Your task to perform on an android device: Open internet settings Image 0: 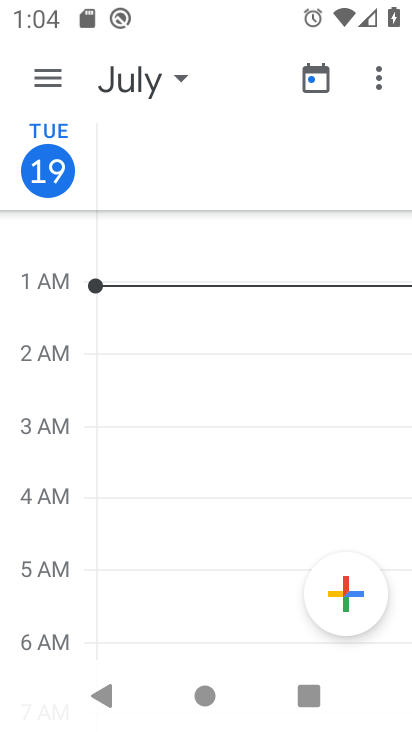
Step 0: press home button
Your task to perform on an android device: Open internet settings Image 1: 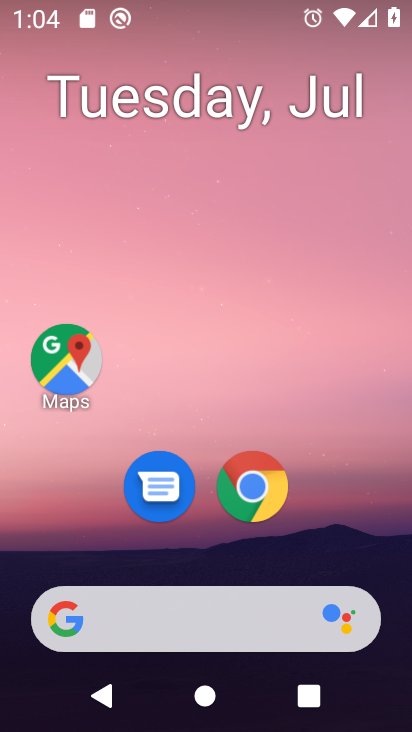
Step 1: drag from (334, 556) to (380, 51)
Your task to perform on an android device: Open internet settings Image 2: 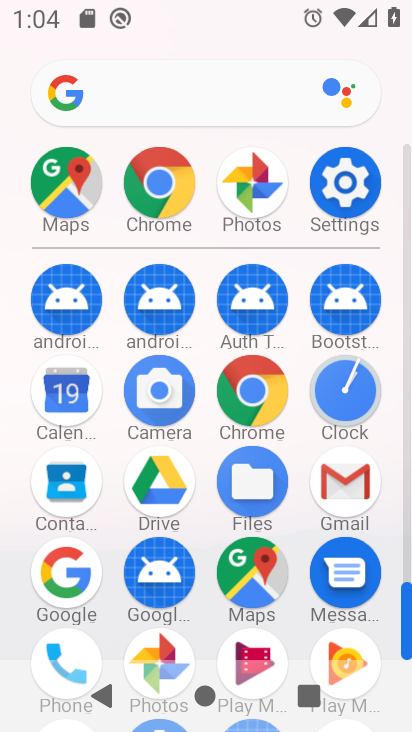
Step 2: click (357, 196)
Your task to perform on an android device: Open internet settings Image 3: 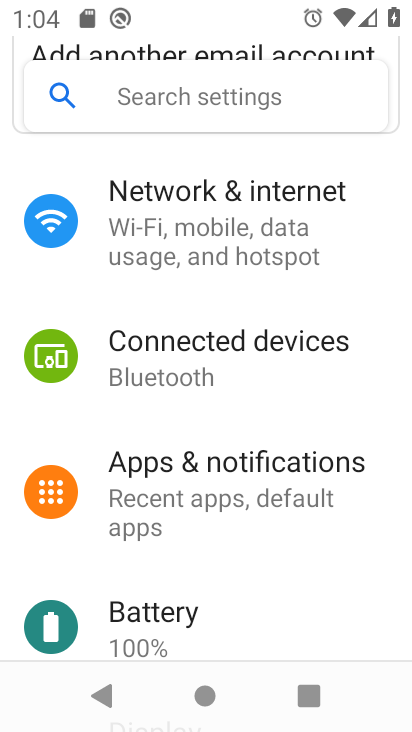
Step 3: drag from (367, 482) to (394, 297)
Your task to perform on an android device: Open internet settings Image 4: 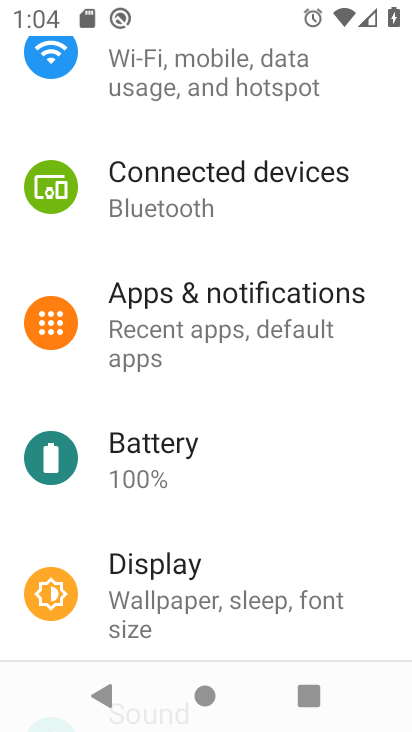
Step 4: drag from (344, 187) to (340, 318)
Your task to perform on an android device: Open internet settings Image 5: 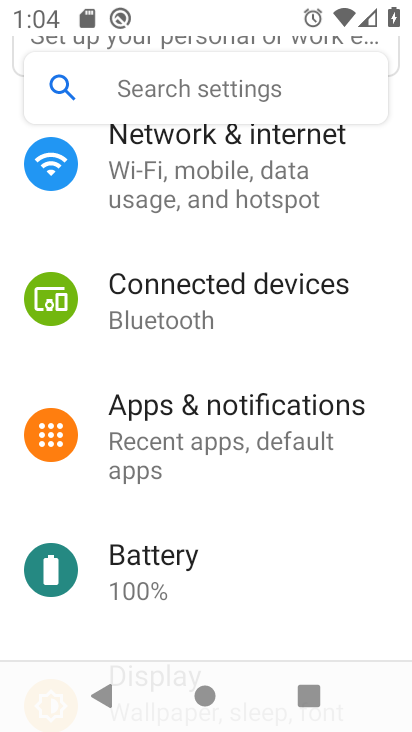
Step 5: drag from (298, 519) to (348, 289)
Your task to perform on an android device: Open internet settings Image 6: 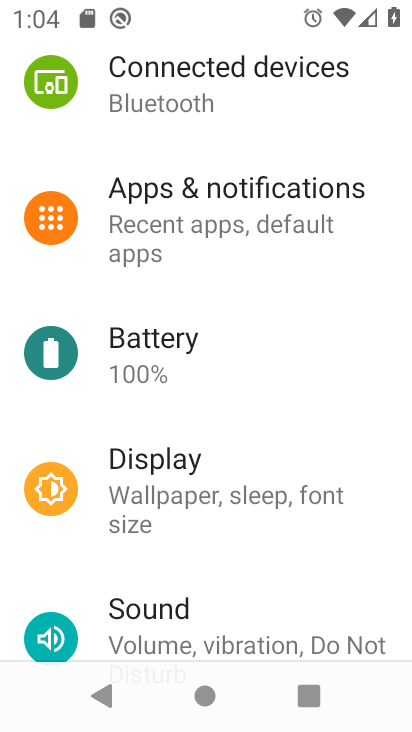
Step 6: drag from (307, 420) to (310, 246)
Your task to perform on an android device: Open internet settings Image 7: 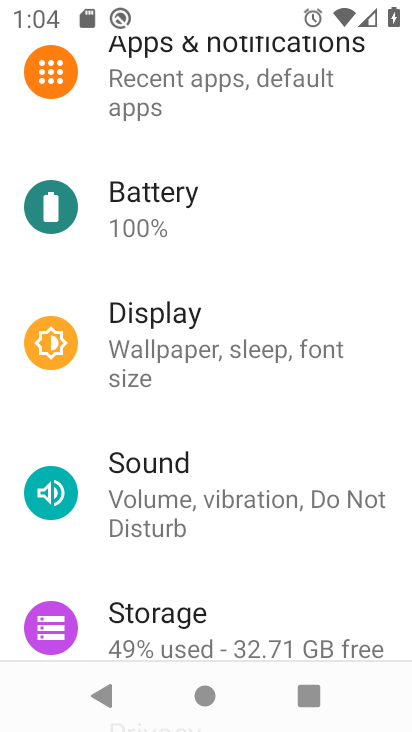
Step 7: drag from (285, 246) to (304, 407)
Your task to perform on an android device: Open internet settings Image 8: 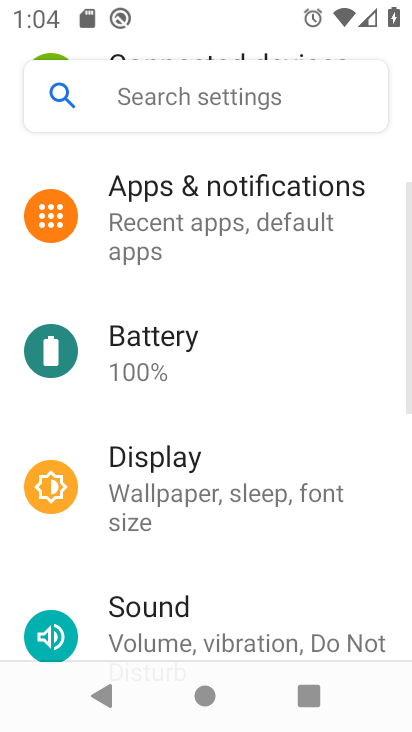
Step 8: drag from (312, 273) to (314, 432)
Your task to perform on an android device: Open internet settings Image 9: 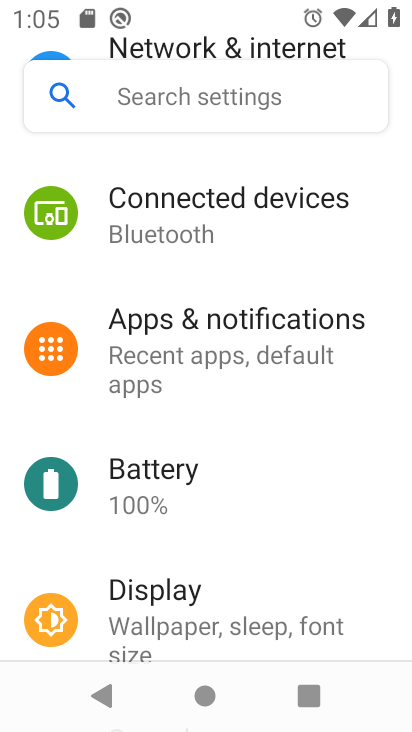
Step 9: drag from (344, 247) to (332, 427)
Your task to perform on an android device: Open internet settings Image 10: 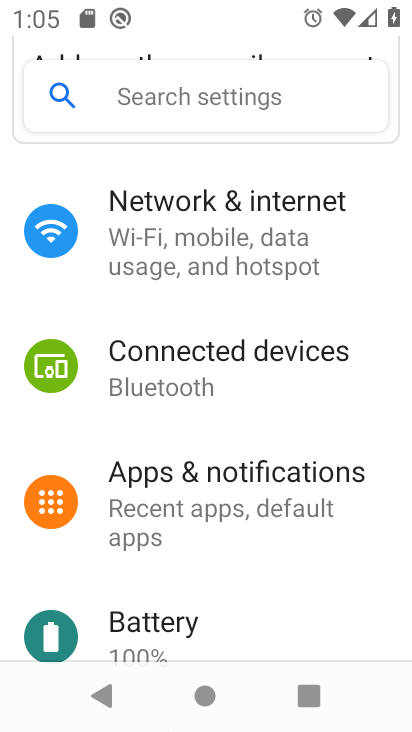
Step 10: drag from (356, 270) to (343, 430)
Your task to perform on an android device: Open internet settings Image 11: 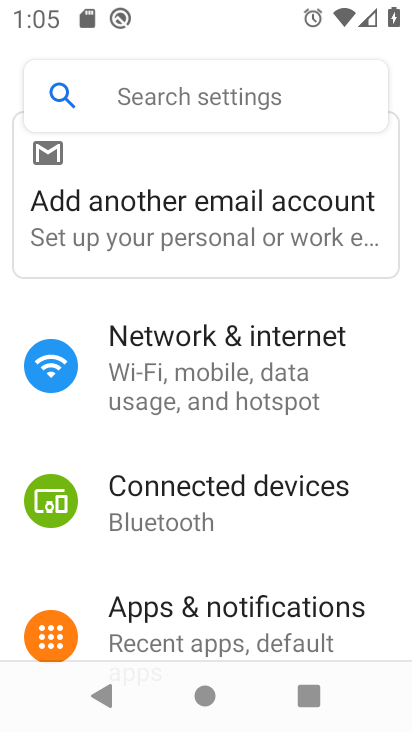
Step 11: drag from (358, 519) to (362, 337)
Your task to perform on an android device: Open internet settings Image 12: 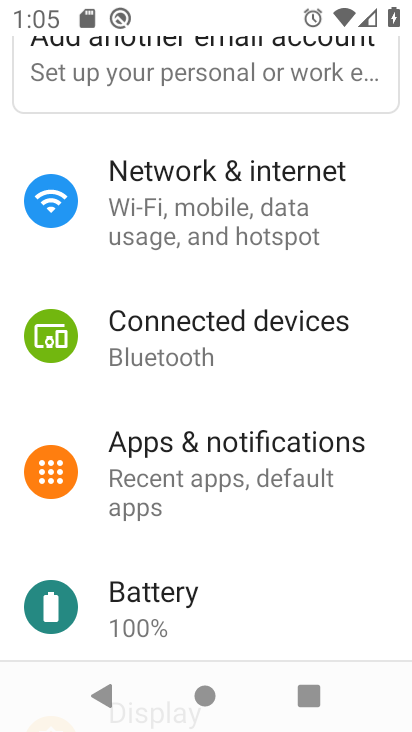
Step 12: drag from (344, 494) to (349, 322)
Your task to perform on an android device: Open internet settings Image 13: 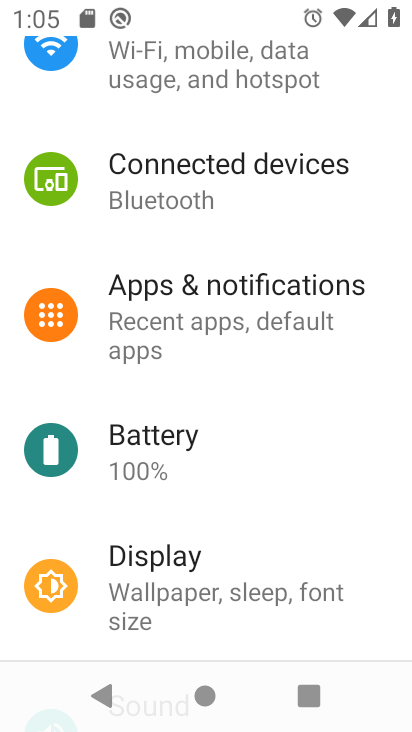
Step 13: drag from (332, 487) to (323, 349)
Your task to perform on an android device: Open internet settings Image 14: 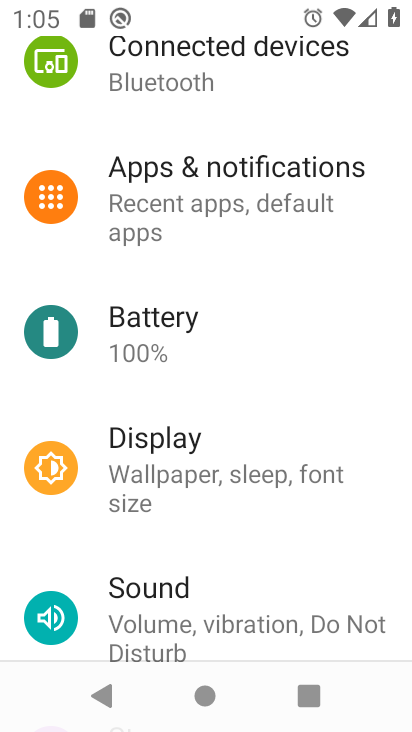
Step 14: drag from (346, 522) to (342, 413)
Your task to perform on an android device: Open internet settings Image 15: 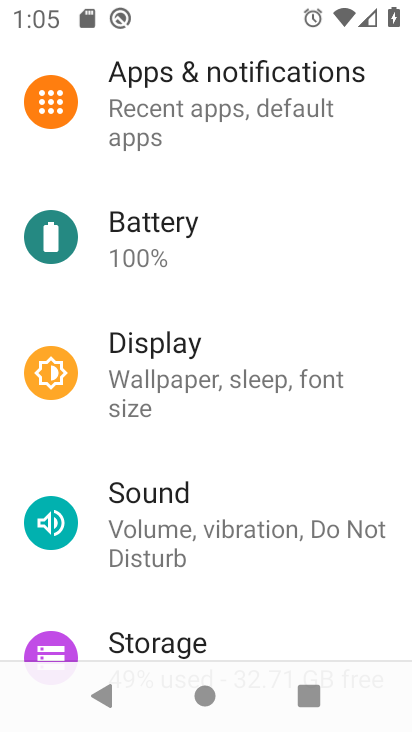
Step 15: drag from (291, 201) to (299, 379)
Your task to perform on an android device: Open internet settings Image 16: 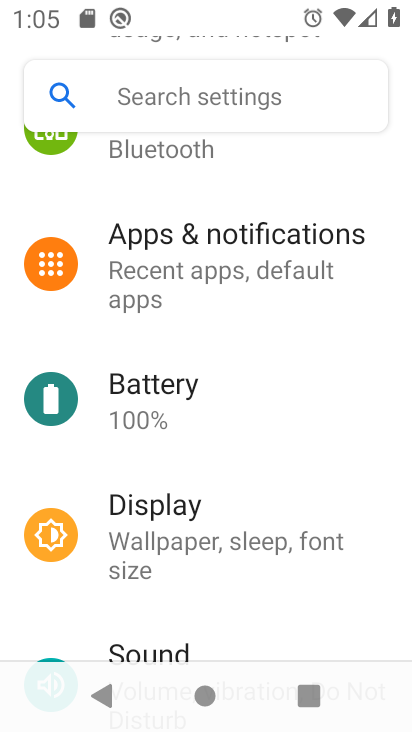
Step 16: drag from (342, 199) to (353, 392)
Your task to perform on an android device: Open internet settings Image 17: 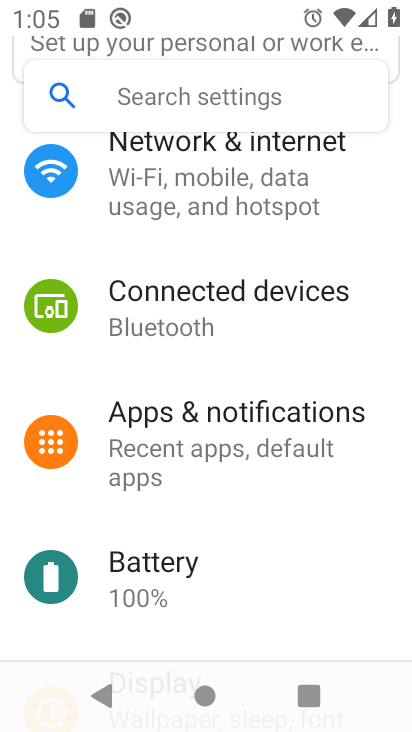
Step 17: click (276, 186)
Your task to perform on an android device: Open internet settings Image 18: 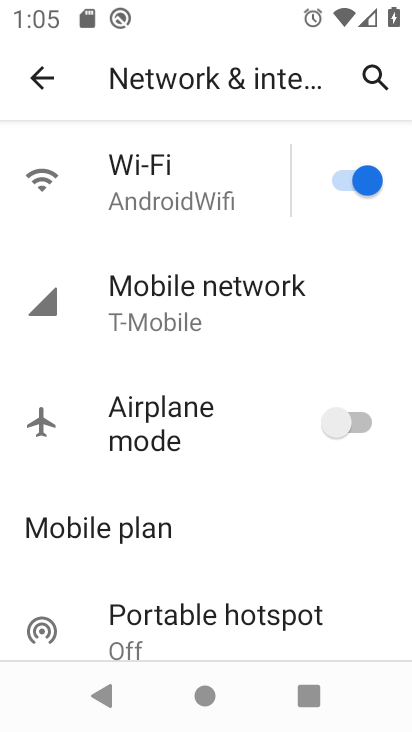
Step 18: task complete